Your task to perform on an android device: Open Chrome and go to the settings page Image 0: 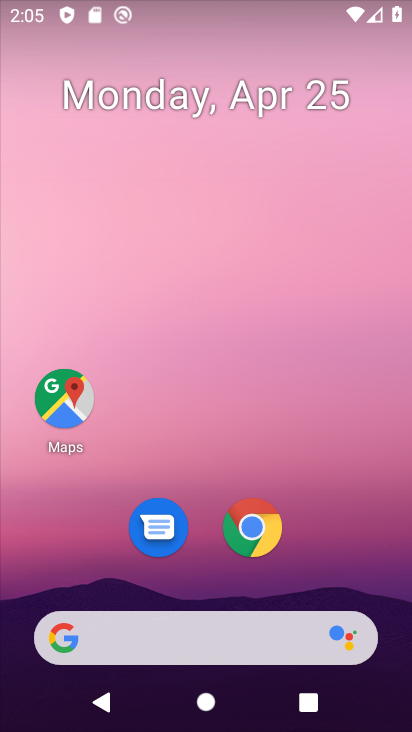
Step 0: click (277, 531)
Your task to perform on an android device: Open Chrome and go to the settings page Image 1: 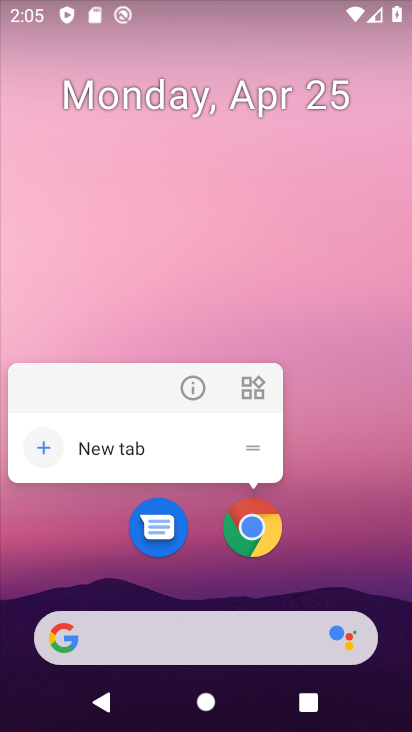
Step 1: click (256, 521)
Your task to perform on an android device: Open Chrome and go to the settings page Image 2: 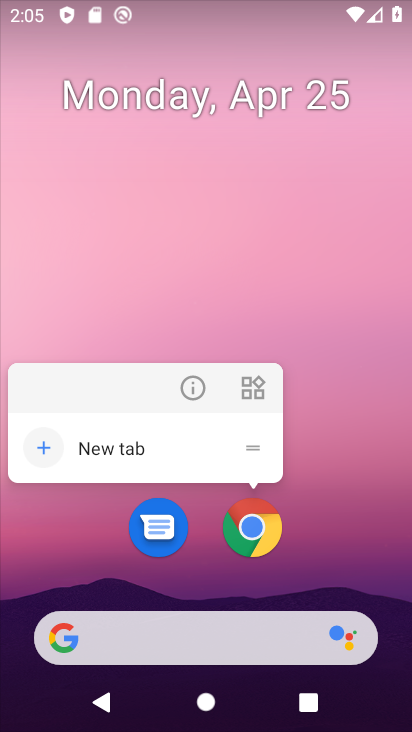
Step 2: click (252, 543)
Your task to perform on an android device: Open Chrome and go to the settings page Image 3: 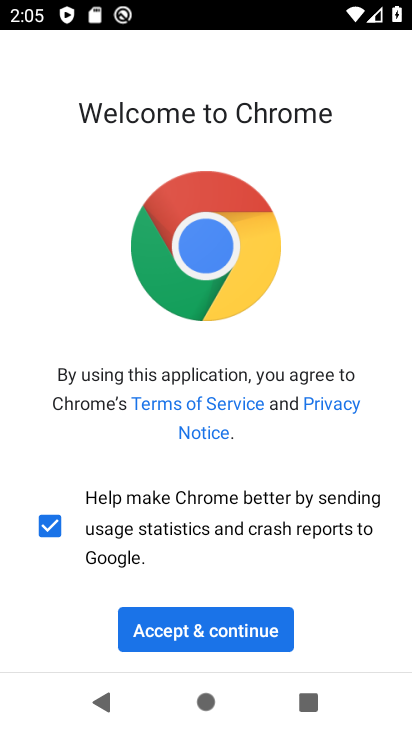
Step 3: click (251, 639)
Your task to perform on an android device: Open Chrome and go to the settings page Image 4: 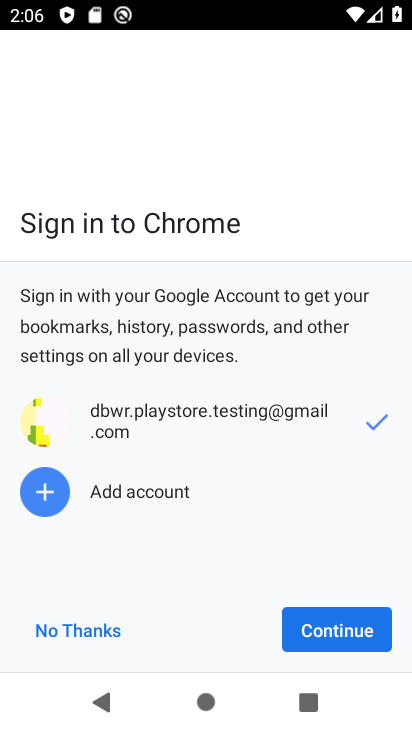
Step 4: click (322, 620)
Your task to perform on an android device: Open Chrome and go to the settings page Image 5: 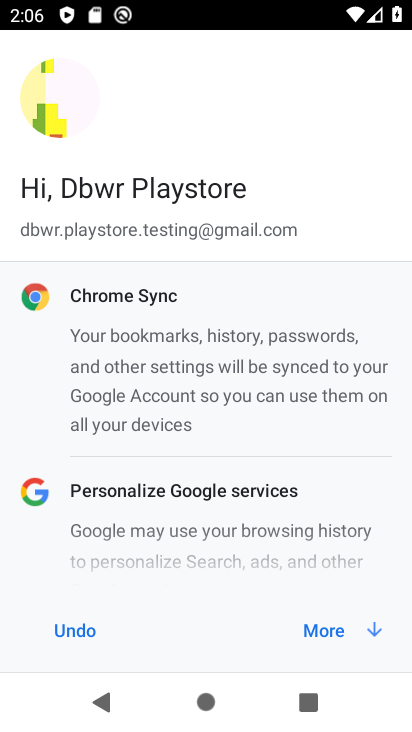
Step 5: click (323, 632)
Your task to perform on an android device: Open Chrome and go to the settings page Image 6: 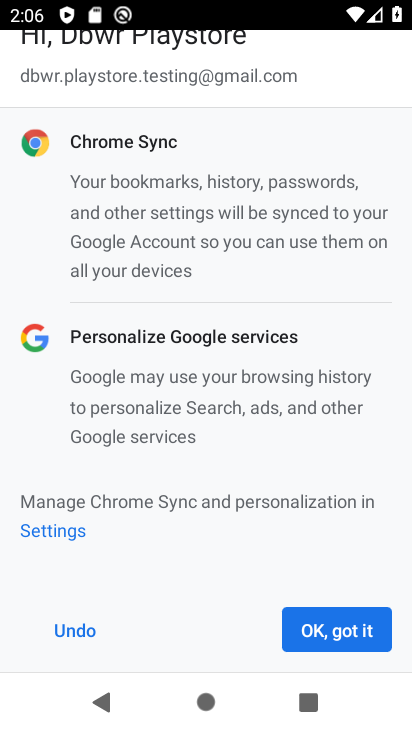
Step 6: click (323, 632)
Your task to perform on an android device: Open Chrome and go to the settings page Image 7: 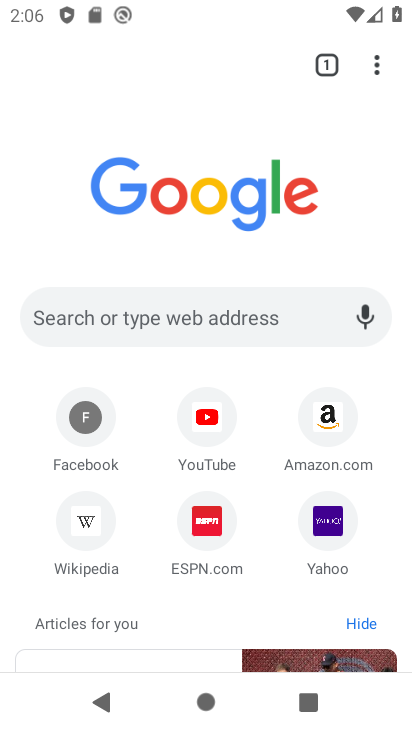
Step 7: click (384, 83)
Your task to perform on an android device: Open Chrome and go to the settings page Image 8: 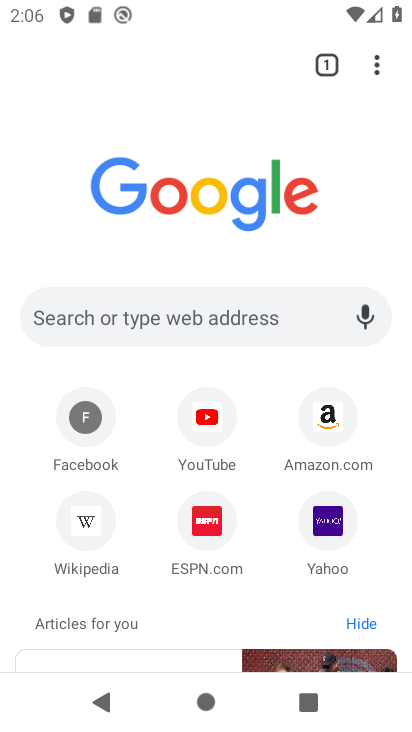
Step 8: click (383, 82)
Your task to perform on an android device: Open Chrome and go to the settings page Image 9: 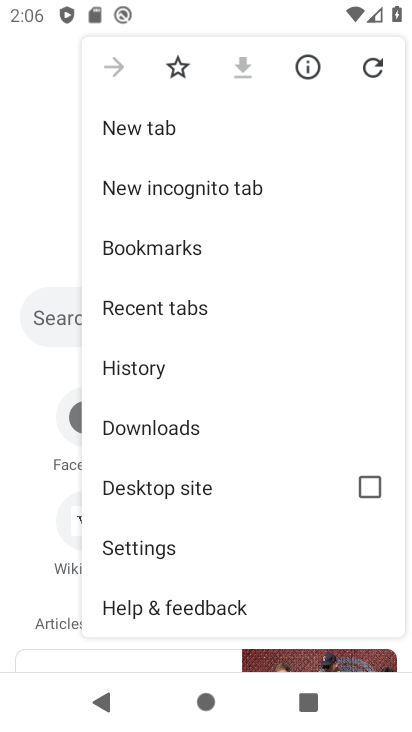
Step 9: click (173, 547)
Your task to perform on an android device: Open Chrome and go to the settings page Image 10: 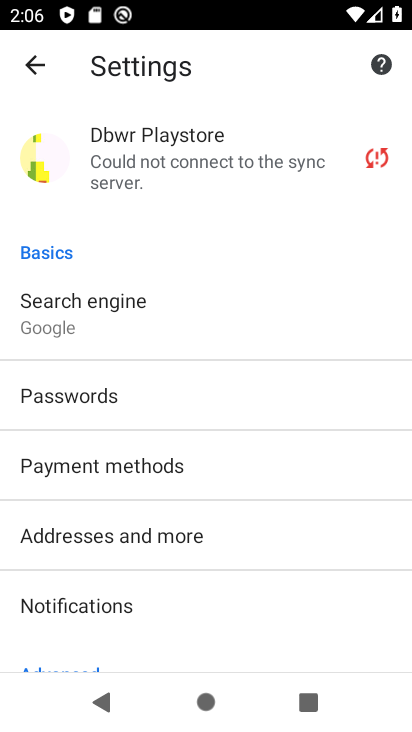
Step 10: task complete